Your task to perform on an android device: turn off location history Image 0: 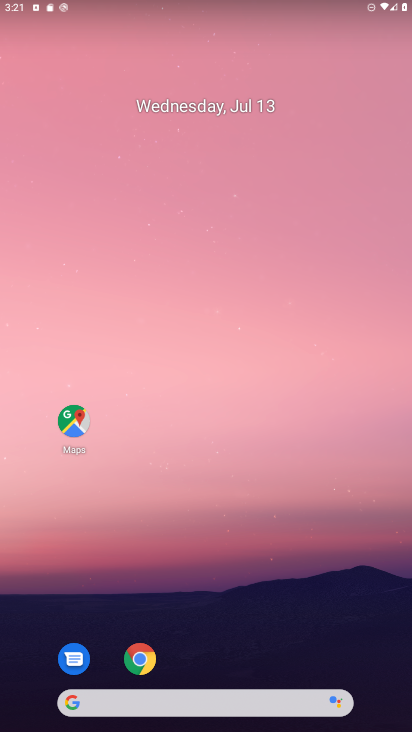
Step 0: click (74, 418)
Your task to perform on an android device: turn off location history Image 1: 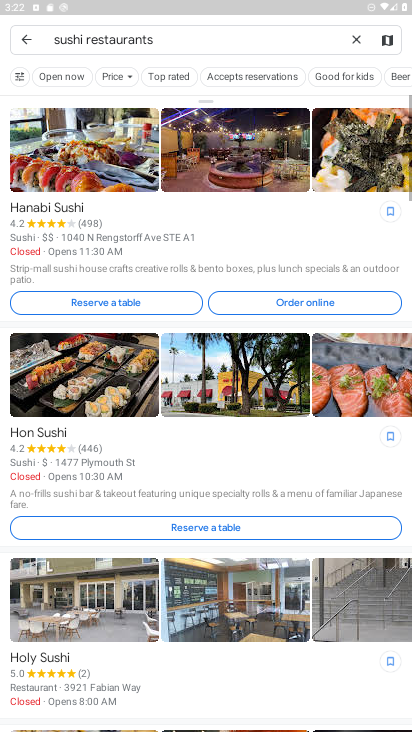
Step 1: click (352, 38)
Your task to perform on an android device: turn off location history Image 2: 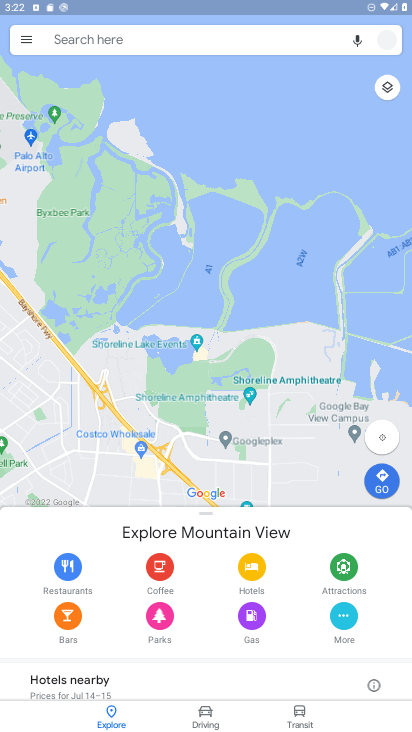
Step 2: click (23, 40)
Your task to perform on an android device: turn off location history Image 3: 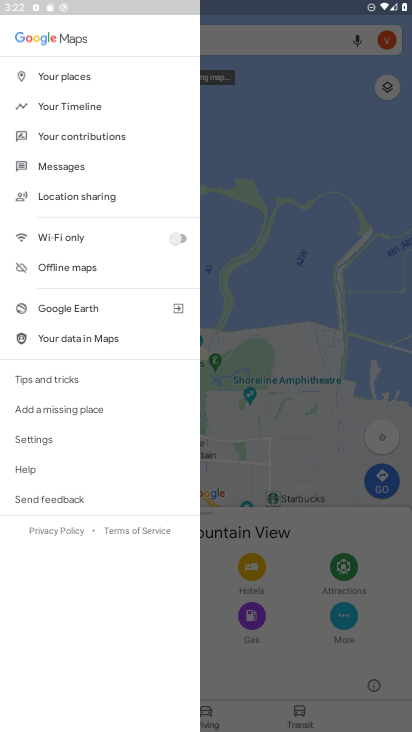
Step 3: click (37, 443)
Your task to perform on an android device: turn off location history Image 4: 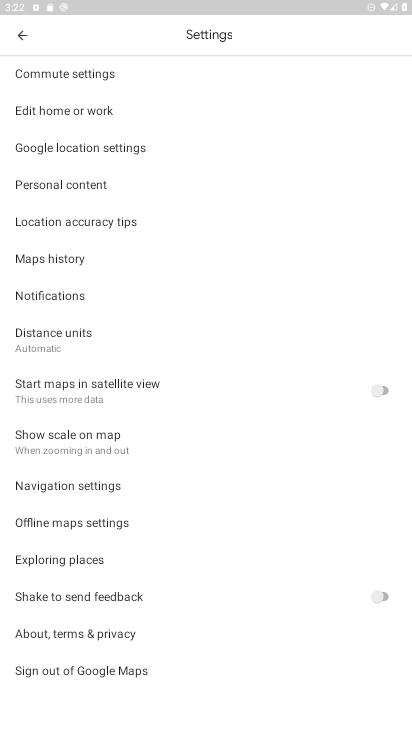
Step 4: click (67, 182)
Your task to perform on an android device: turn off location history Image 5: 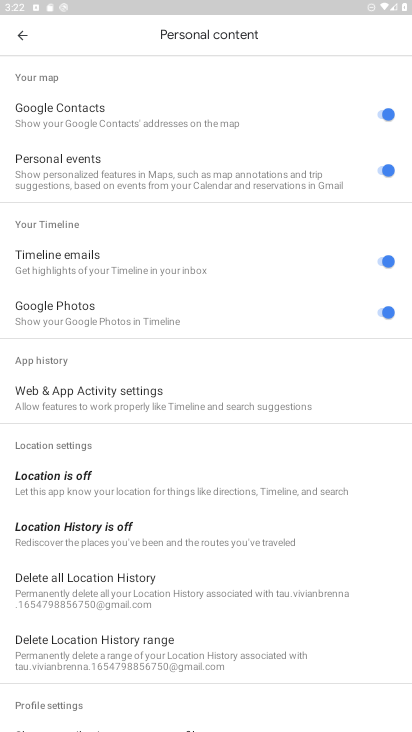
Step 5: task complete